Your task to perform on an android device: Empty the shopping cart on target. Image 0: 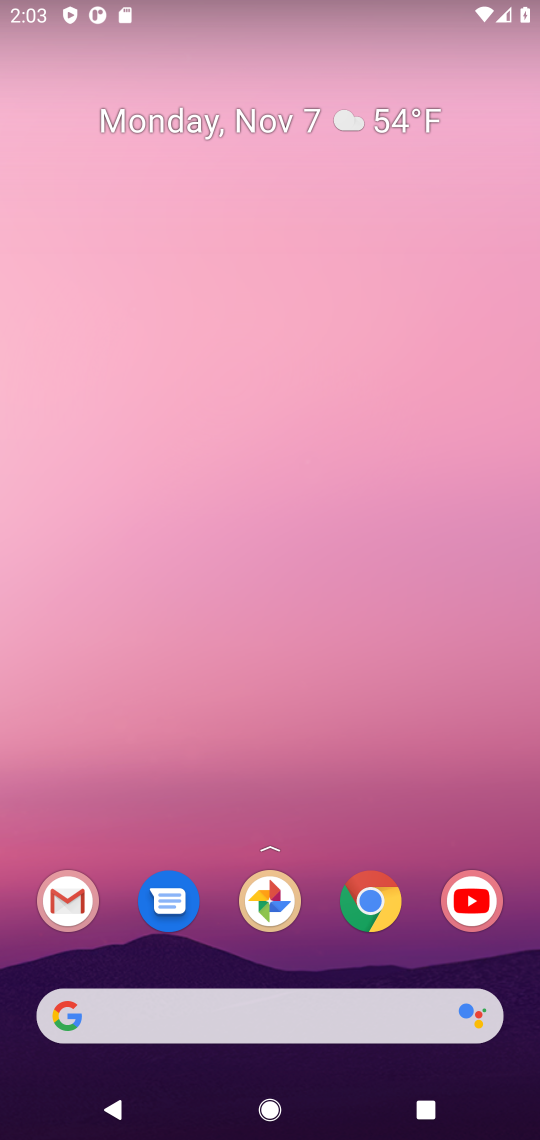
Step 0: click (370, 904)
Your task to perform on an android device: Empty the shopping cart on target. Image 1: 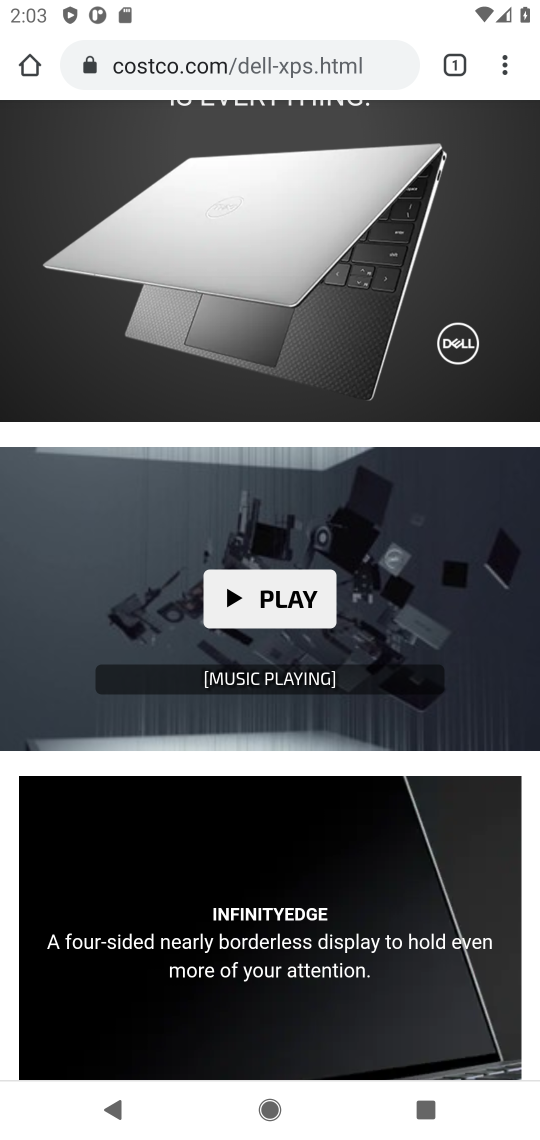
Step 1: click (234, 65)
Your task to perform on an android device: Empty the shopping cart on target. Image 2: 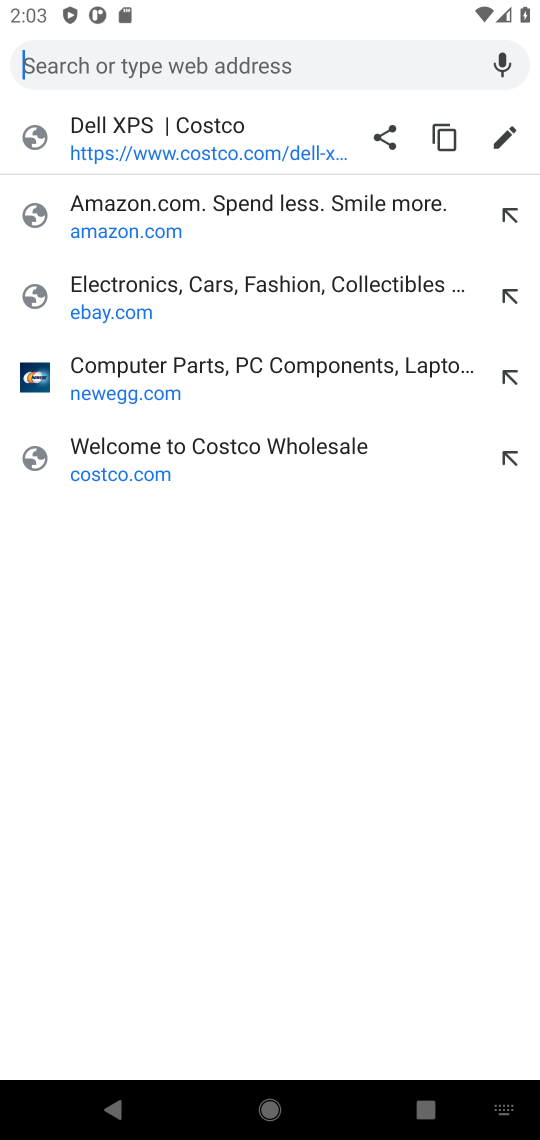
Step 2: type "target.com"
Your task to perform on an android device: Empty the shopping cart on target. Image 3: 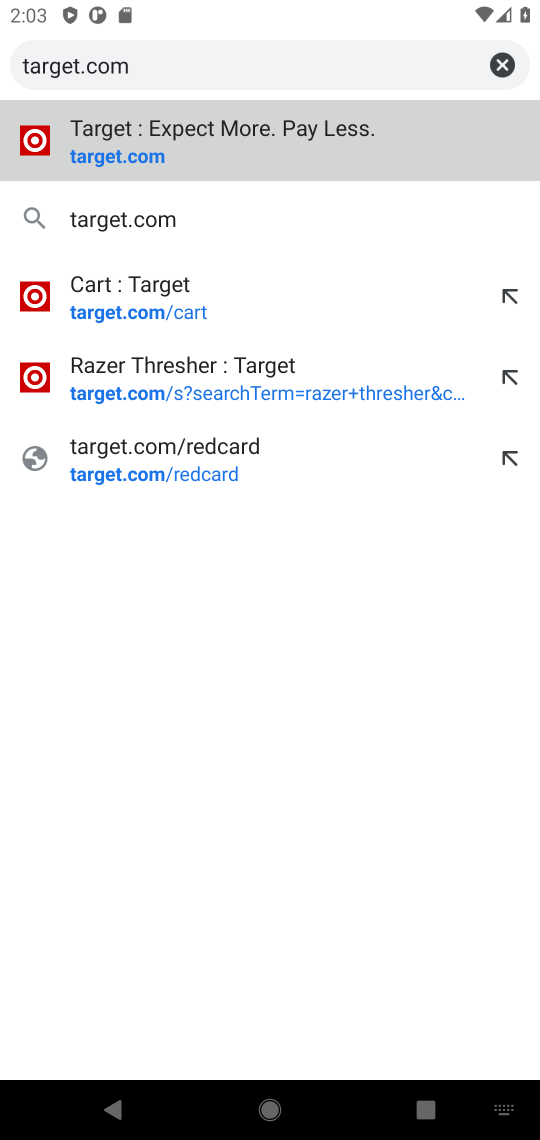
Step 3: click (129, 160)
Your task to perform on an android device: Empty the shopping cart on target. Image 4: 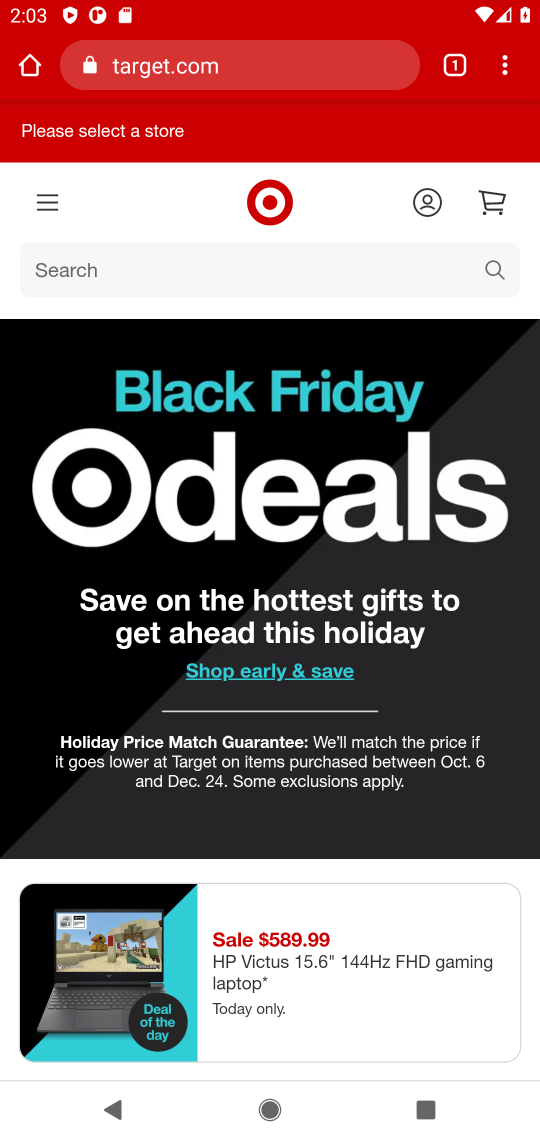
Step 4: click (493, 204)
Your task to perform on an android device: Empty the shopping cart on target. Image 5: 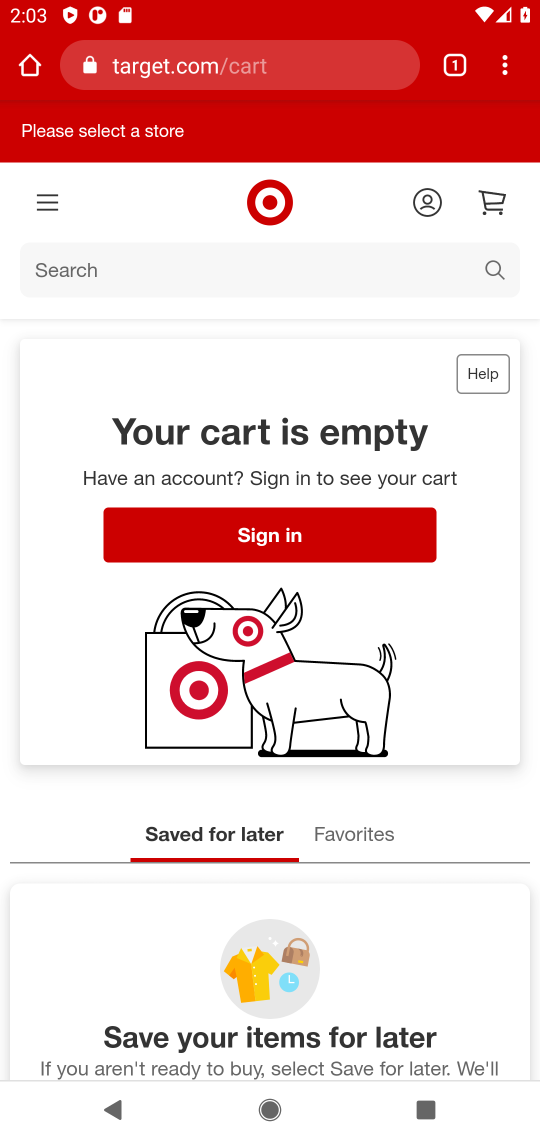
Step 5: task complete